Your task to perform on an android device: toggle notification dots Image 0: 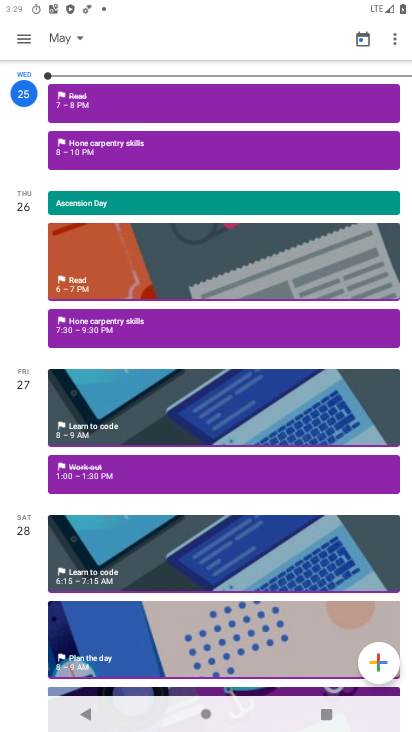
Step 0: press home button
Your task to perform on an android device: toggle notification dots Image 1: 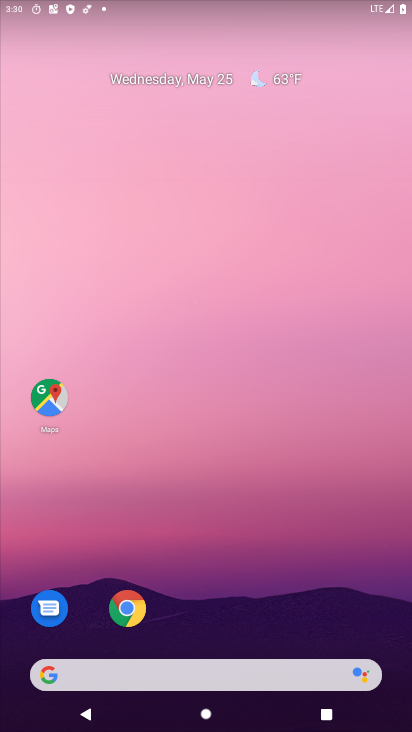
Step 1: drag from (250, 538) to (271, 181)
Your task to perform on an android device: toggle notification dots Image 2: 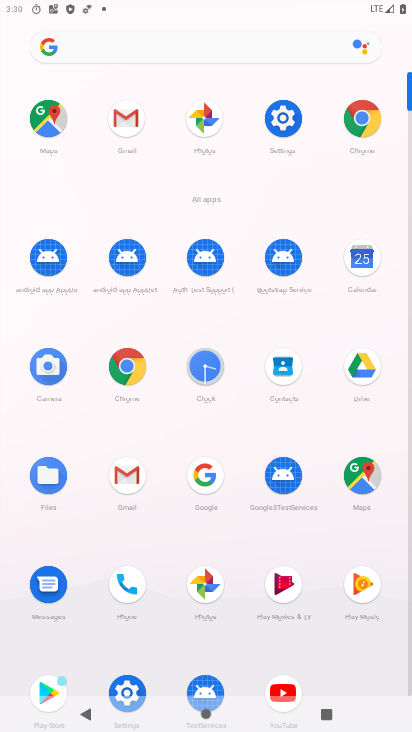
Step 2: click (296, 124)
Your task to perform on an android device: toggle notification dots Image 3: 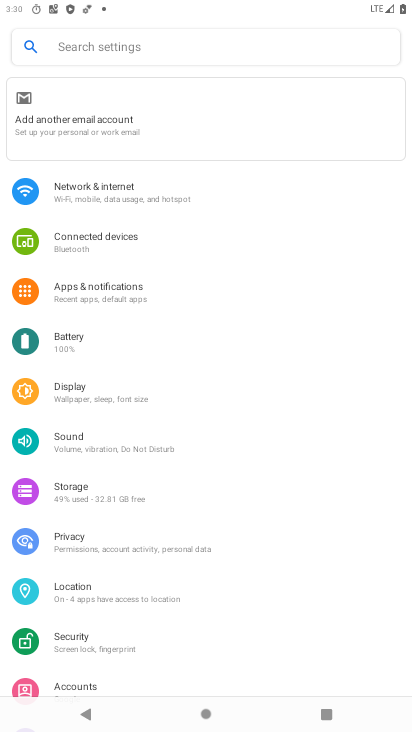
Step 3: click (132, 295)
Your task to perform on an android device: toggle notification dots Image 4: 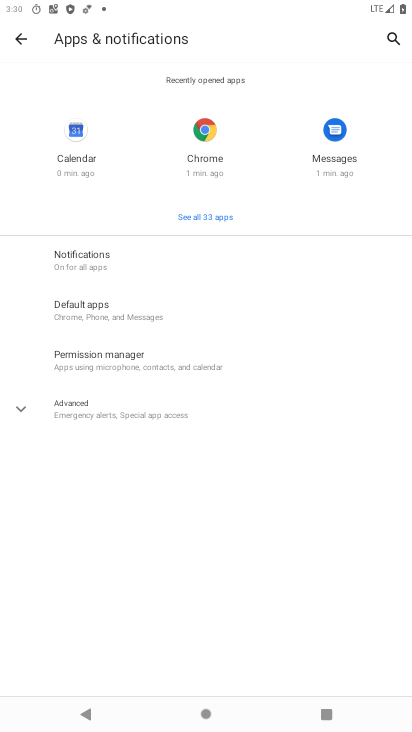
Step 4: click (102, 263)
Your task to perform on an android device: toggle notification dots Image 5: 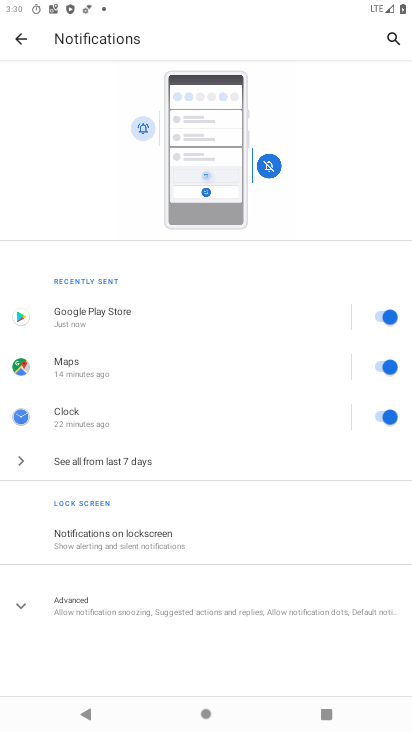
Step 5: click (133, 599)
Your task to perform on an android device: toggle notification dots Image 6: 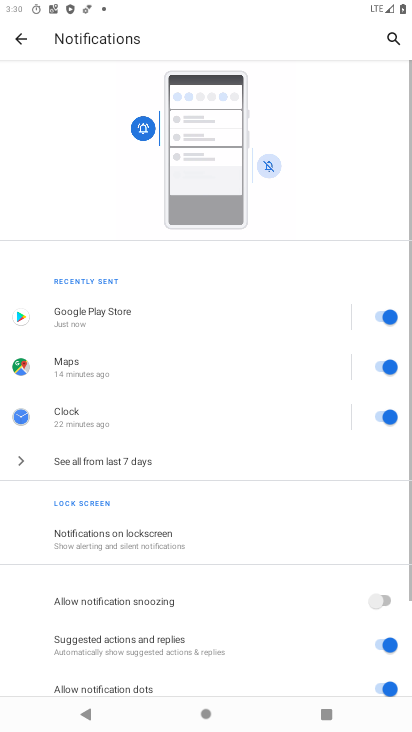
Step 6: drag from (150, 604) to (266, 254)
Your task to perform on an android device: toggle notification dots Image 7: 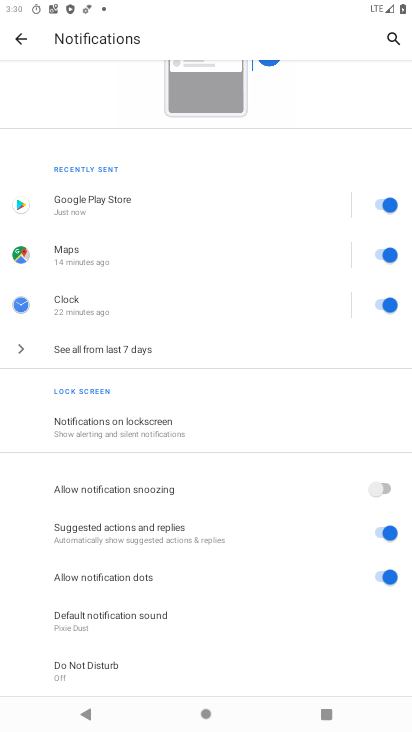
Step 7: click (390, 573)
Your task to perform on an android device: toggle notification dots Image 8: 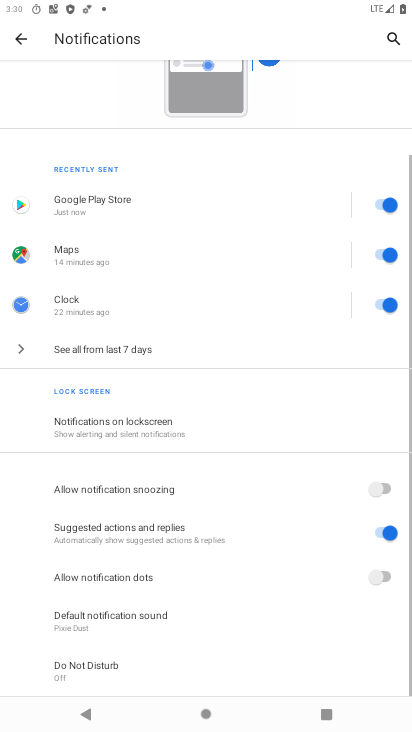
Step 8: task complete